Your task to perform on an android device: turn on sleep mode Image 0: 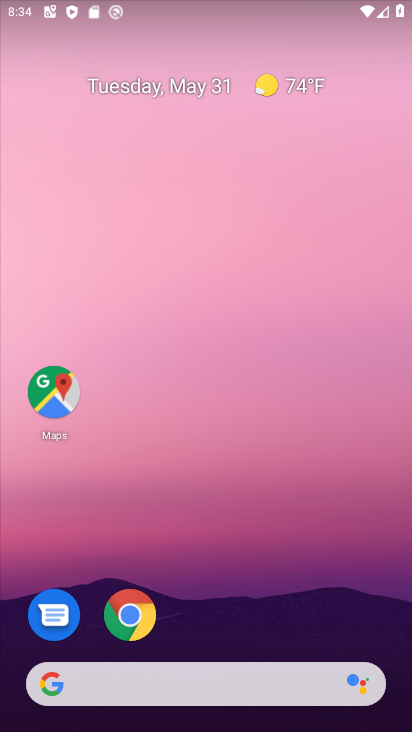
Step 0: drag from (225, 634) to (238, 179)
Your task to perform on an android device: turn on sleep mode Image 1: 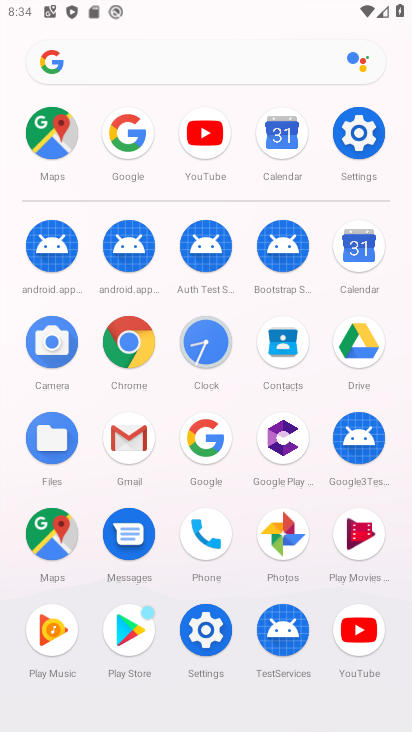
Step 1: click (354, 130)
Your task to perform on an android device: turn on sleep mode Image 2: 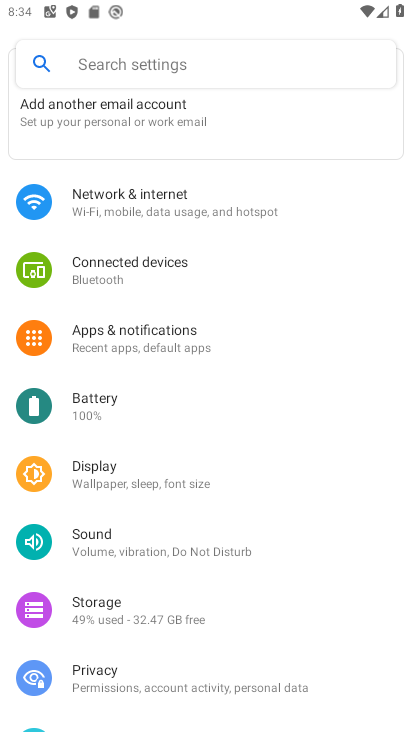
Step 2: click (147, 478)
Your task to perform on an android device: turn on sleep mode Image 3: 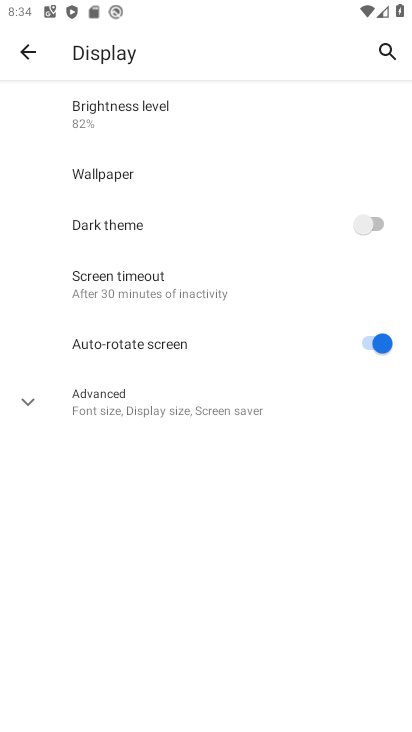
Step 3: click (145, 277)
Your task to perform on an android device: turn on sleep mode Image 4: 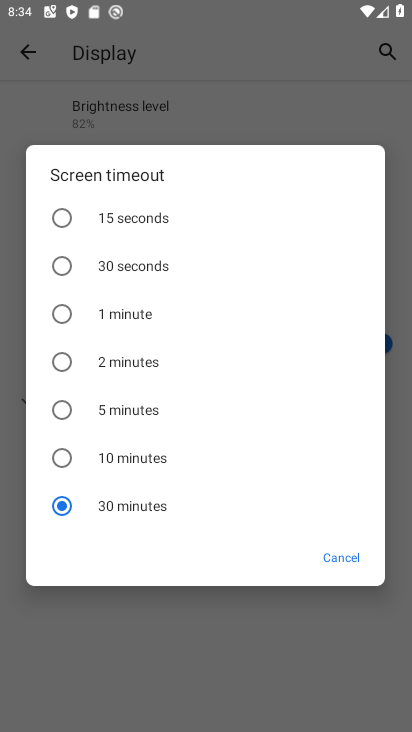
Step 4: click (142, 273)
Your task to perform on an android device: turn on sleep mode Image 5: 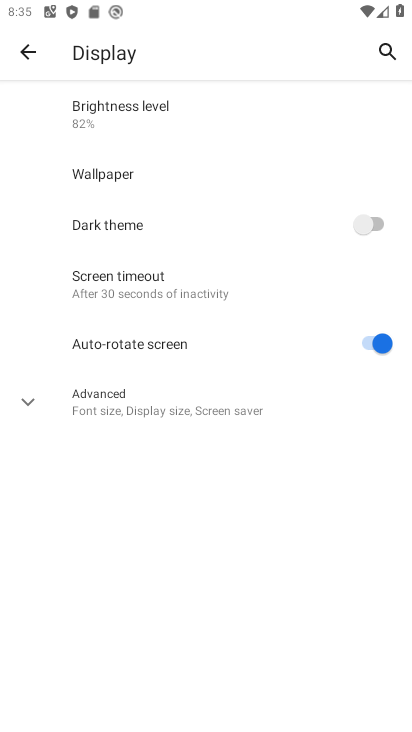
Step 5: task complete